Your task to perform on an android device: change notification settings in the gmail app Image 0: 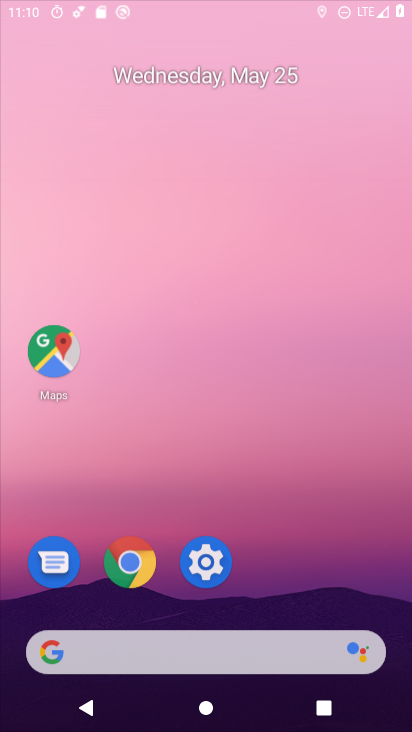
Step 0: click (143, 78)
Your task to perform on an android device: change notification settings in the gmail app Image 1: 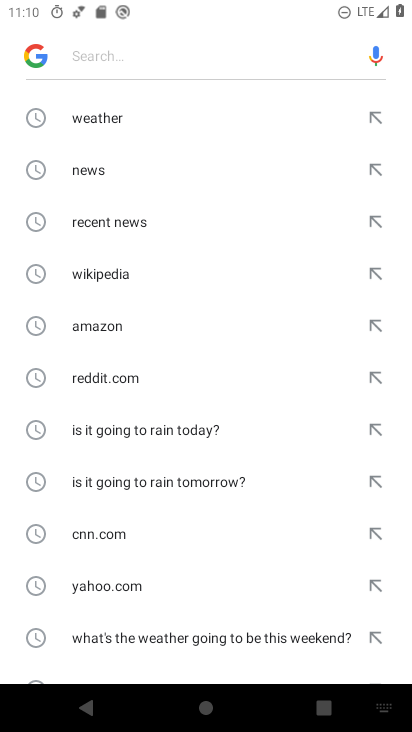
Step 1: press back button
Your task to perform on an android device: change notification settings in the gmail app Image 2: 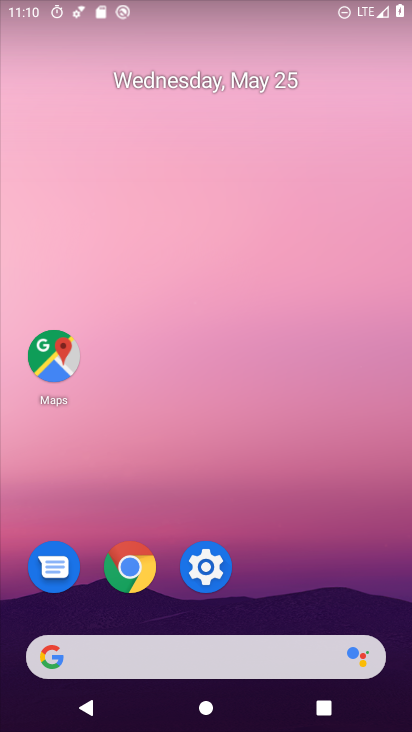
Step 2: drag from (264, 679) to (164, 155)
Your task to perform on an android device: change notification settings in the gmail app Image 3: 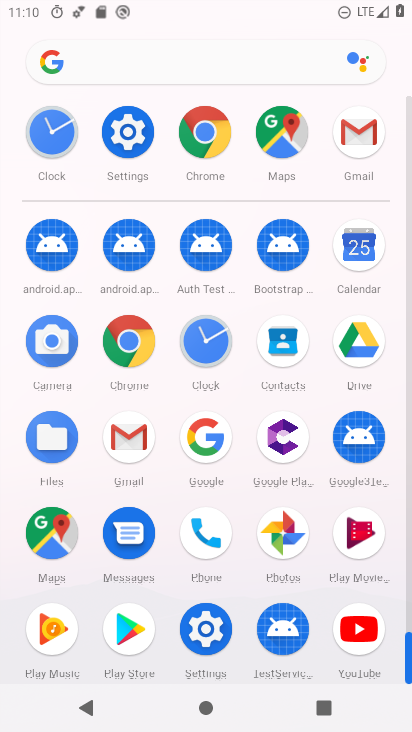
Step 3: click (137, 447)
Your task to perform on an android device: change notification settings in the gmail app Image 4: 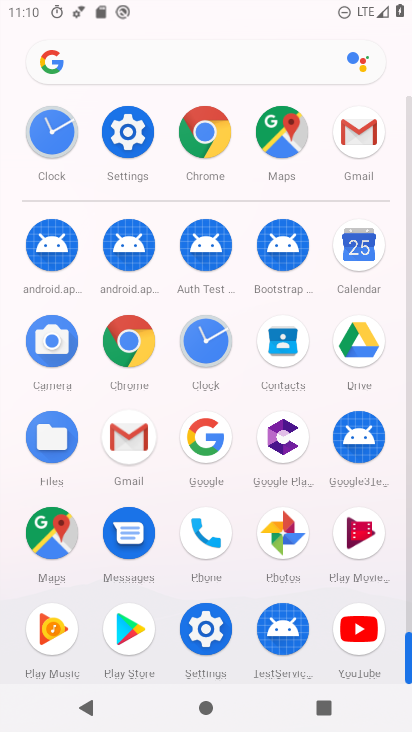
Step 4: click (137, 447)
Your task to perform on an android device: change notification settings in the gmail app Image 5: 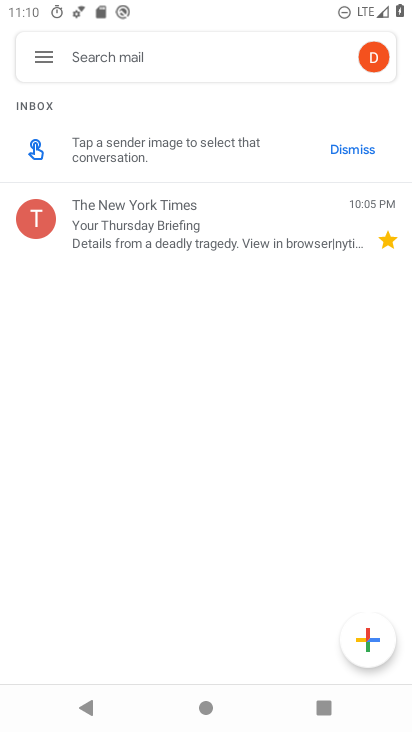
Step 5: press back button
Your task to perform on an android device: change notification settings in the gmail app Image 6: 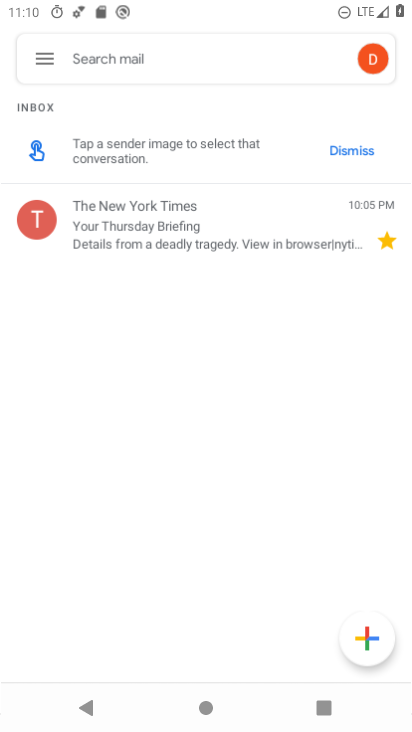
Step 6: press back button
Your task to perform on an android device: change notification settings in the gmail app Image 7: 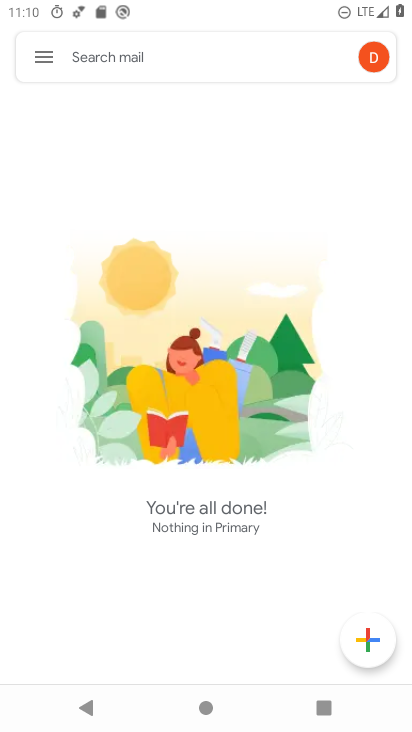
Step 7: click (46, 52)
Your task to perform on an android device: change notification settings in the gmail app Image 8: 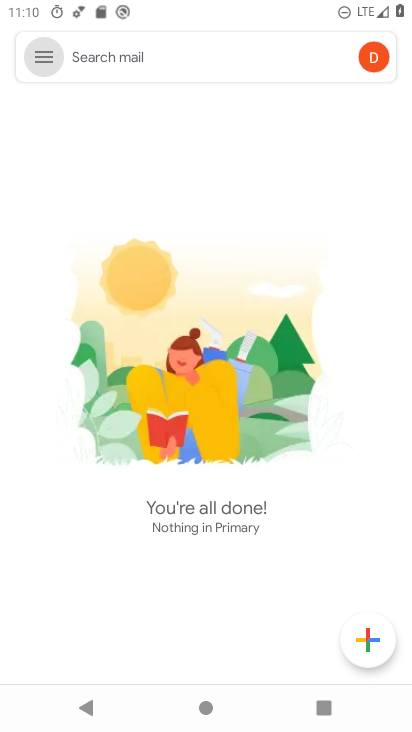
Step 8: click (46, 52)
Your task to perform on an android device: change notification settings in the gmail app Image 9: 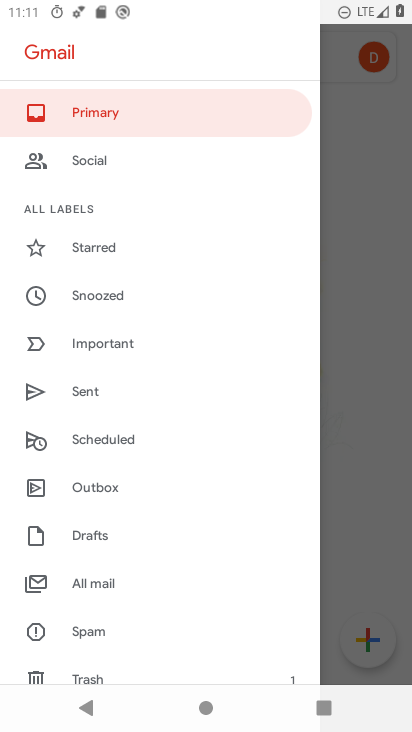
Step 9: drag from (90, 493) to (97, 88)
Your task to perform on an android device: change notification settings in the gmail app Image 10: 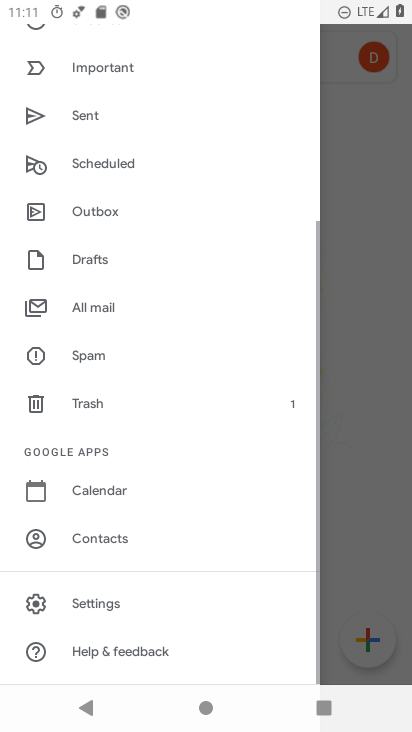
Step 10: drag from (115, 195) to (128, 92)
Your task to perform on an android device: change notification settings in the gmail app Image 11: 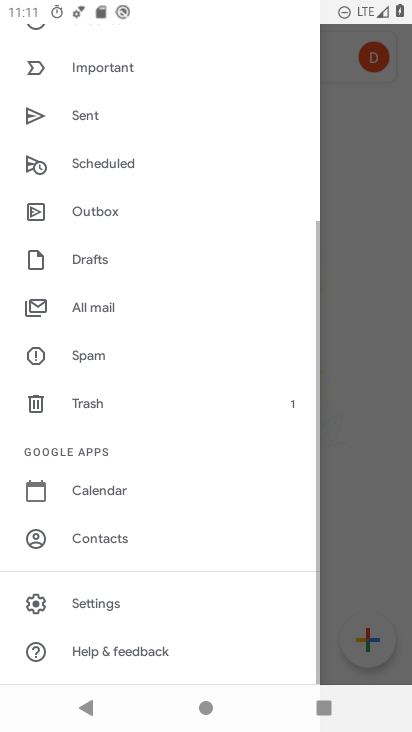
Step 11: click (91, 609)
Your task to perform on an android device: change notification settings in the gmail app Image 12: 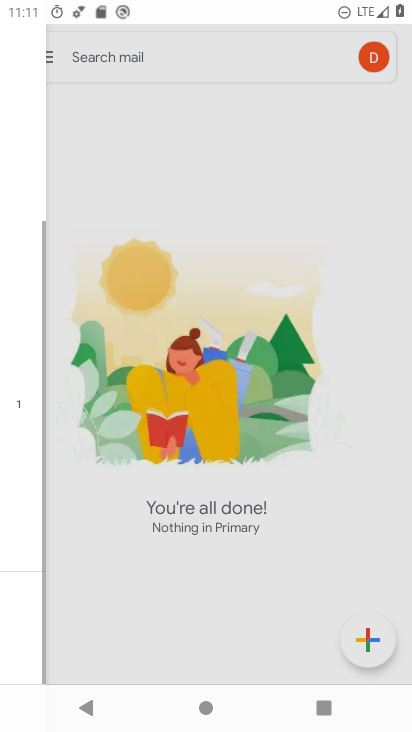
Step 12: click (87, 596)
Your task to perform on an android device: change notification settings in the gmail app Image 13: 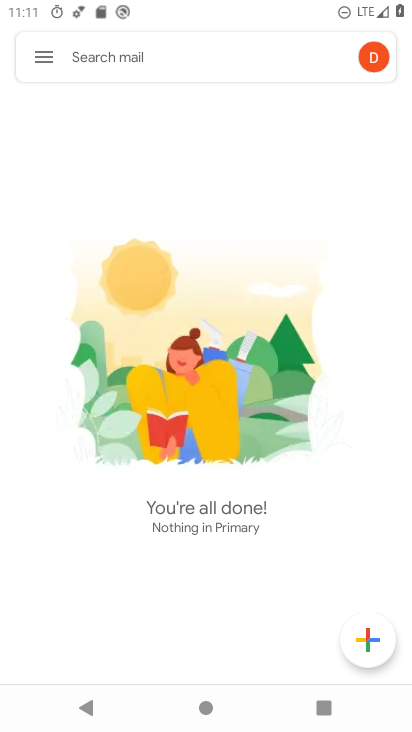
Step 13: click (87, 596)
Your task to perform on an android device: change notification settings in the gmail app Image 14: 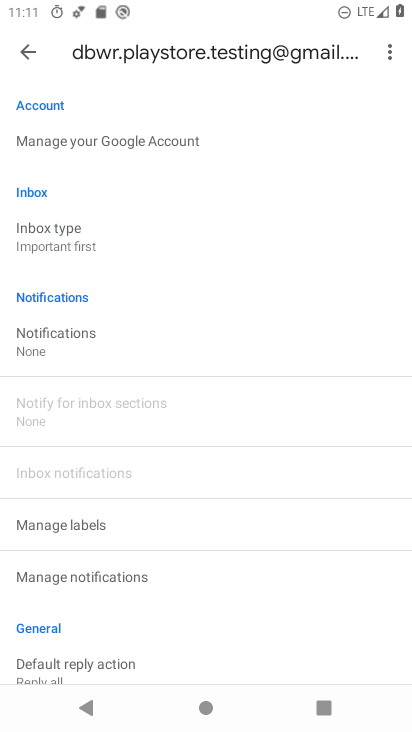
Step 14: click (24, 332)
Your task to perform on an android device: change notification settings in the gmail app Image 15: 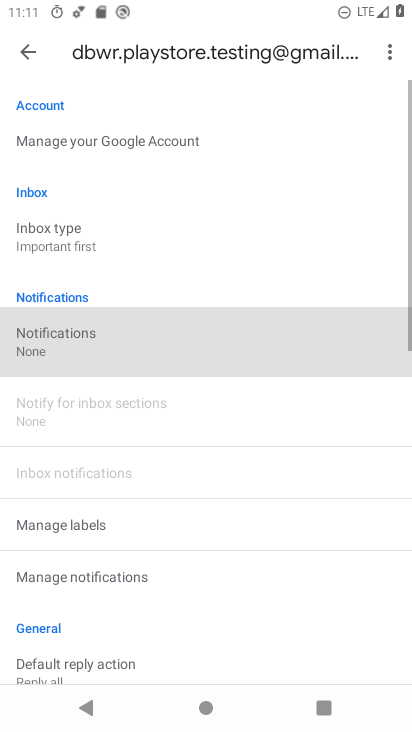
Step 15: click (24, 332)
Your task to perform on an android device: change notification settings in the gmail app Image 16: 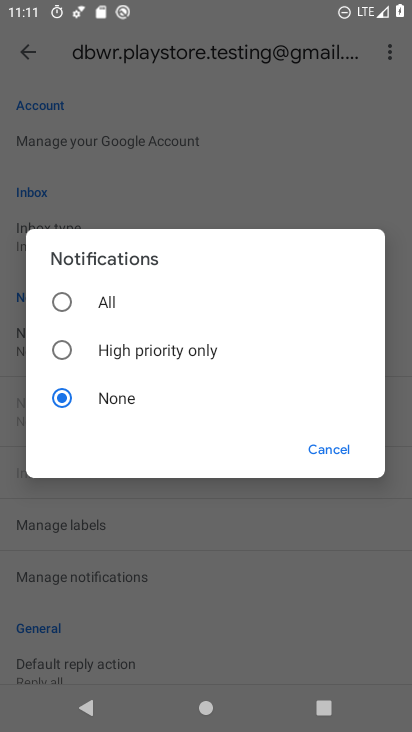
Step 16: click (58, 302)
Your task to perform on an android device: change notification settings in the gmail app Image 17: 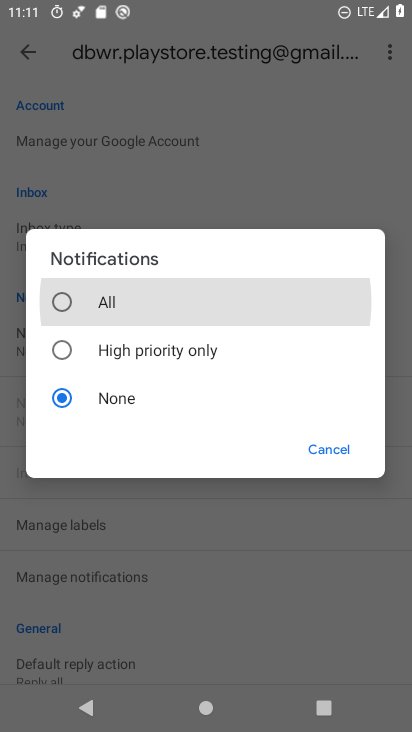
Step 17: click (58, 302)
Your task to perform on an android device: change notification settings in the gmail app Image 18: 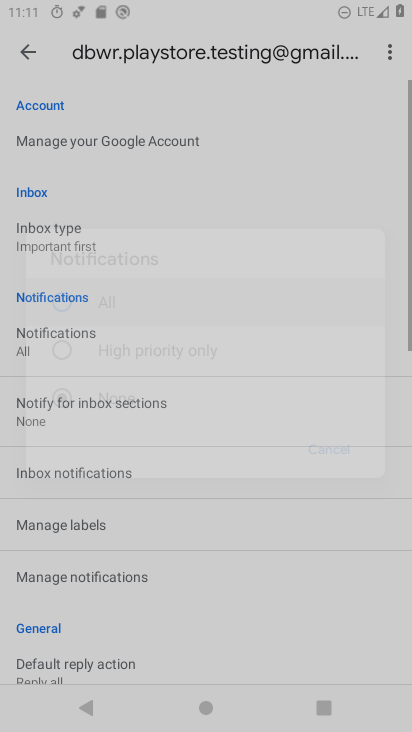
Step 18: click (58, 302)
Your task to perform on an android device: change notification settings in the gmail app Image 19: 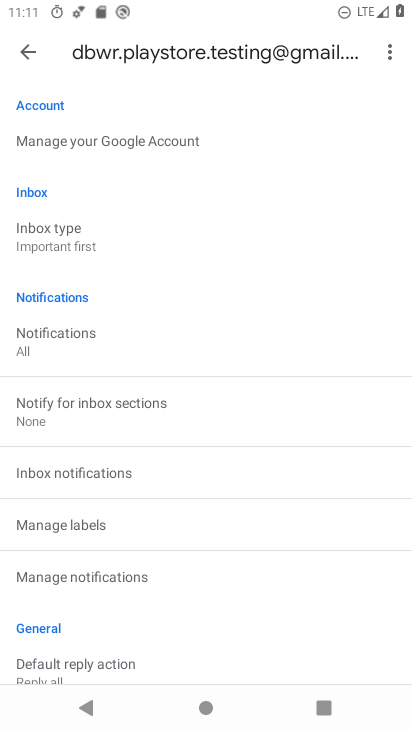
Step 19: task complete